Your task to perform on an android device: add a contact in the contacts app Image 0: 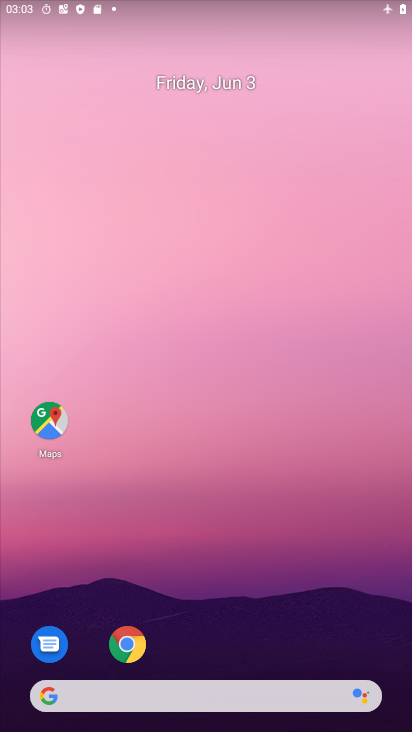
Step 0: drag from (201, 652) to (310, 190)
Your task to perform on an android device: add a contact in the contacts app Image 1: 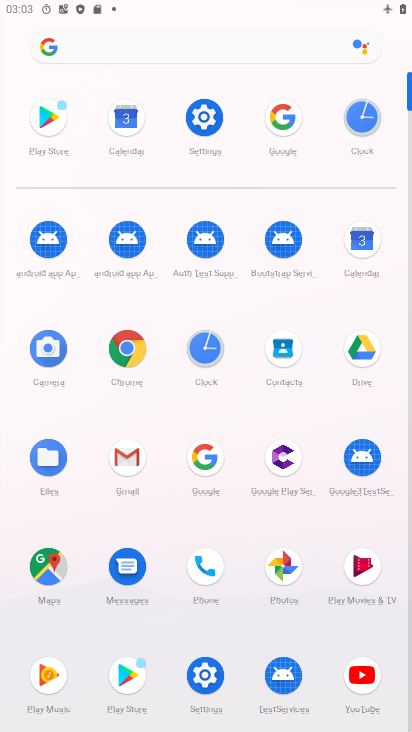
Step 1: click (289, 345)
Your task to perform on an android device: add a contact in the contacts app Image 2: 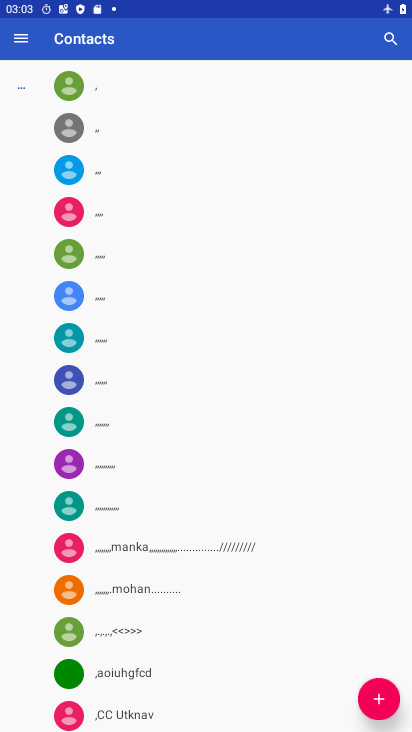
Step 2: click (378, 701)
Your task to perform on an android device: add a contact in the contacts app Image 3: 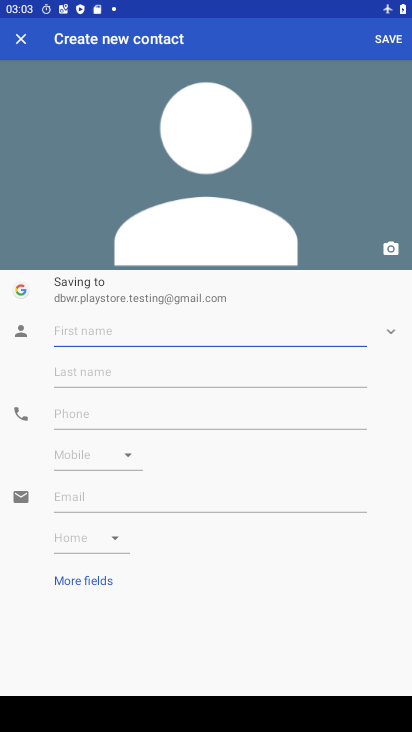
Step 3: type "rgfhgm"
Your task to perform on an android device: add a contact in the contacts app Image 4: 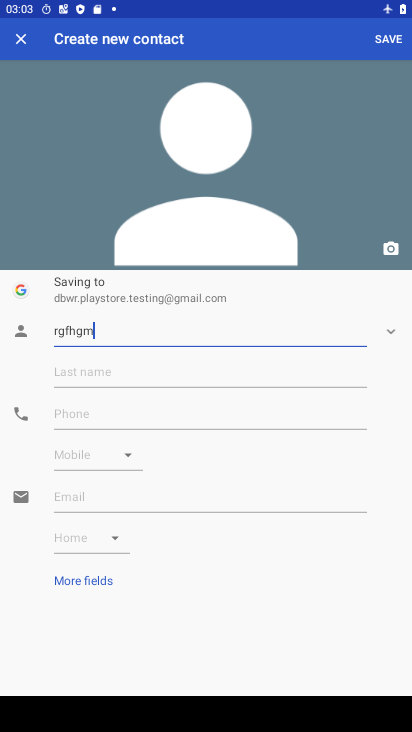
Step 4: click (149, 421)
Your task to perform on an android device: add a contact in the contacts app Image 5: 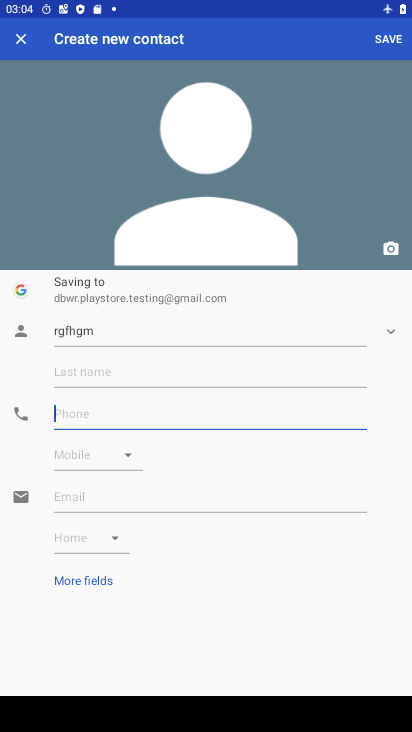
Step 5: type "86756666876"
Your task to perform on an android device: add a contact in the contacts app Image 6: 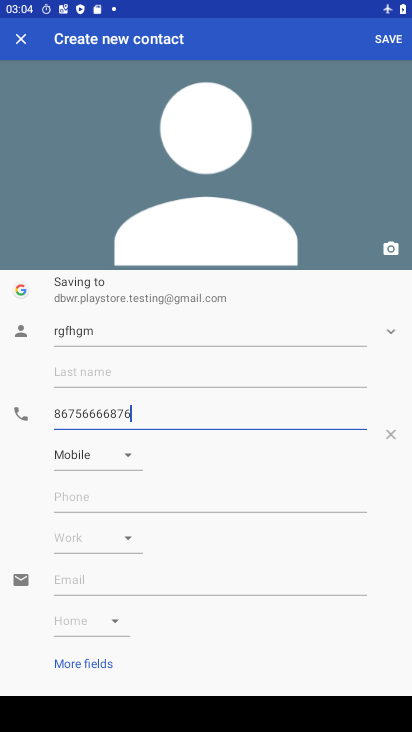
Step 6: click (383, 32)
Your task to perform on an android device: add a contact in the contacts app Image 7: 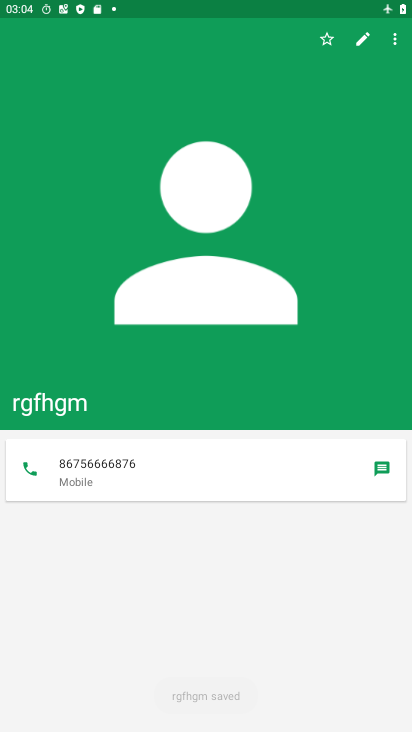
Step 7: task complete